Your task to perform on an android device: turn on javascript in the chrome app Image 0: 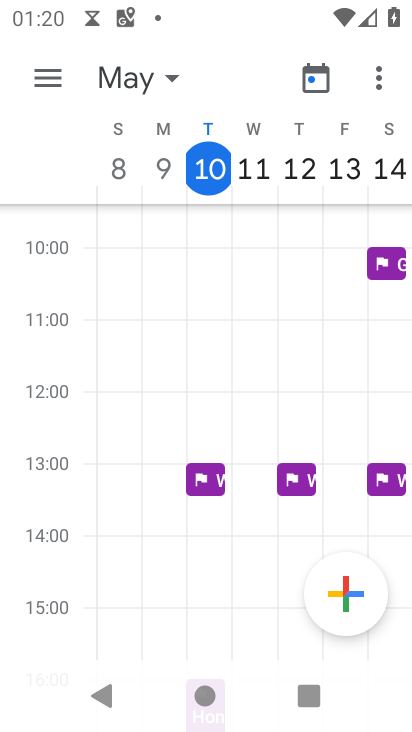
Step 0: press home button
Your task to perform on an android device: turn on javascript in the chrome app Image 1: 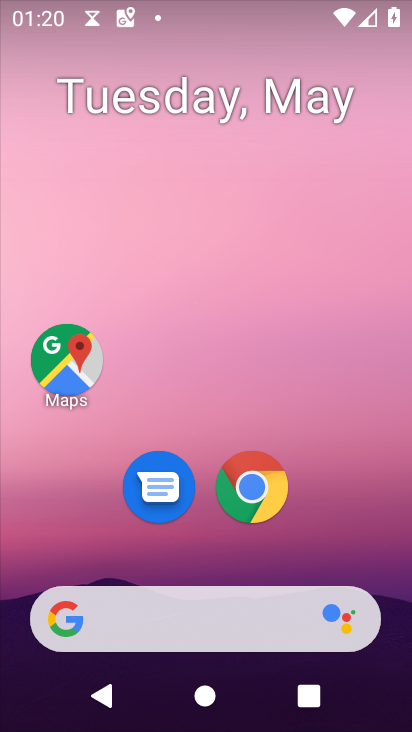
Step 1: click (271, 491)
Your task to perform on an android device: turn on javascript in the chrome app Image 2: 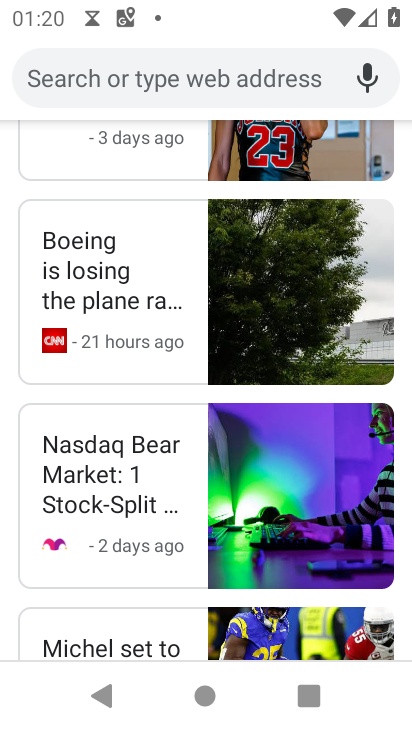
Step 2: press back button
Your task to perform on an android device: turn on javascript in the chrome app Image 3: 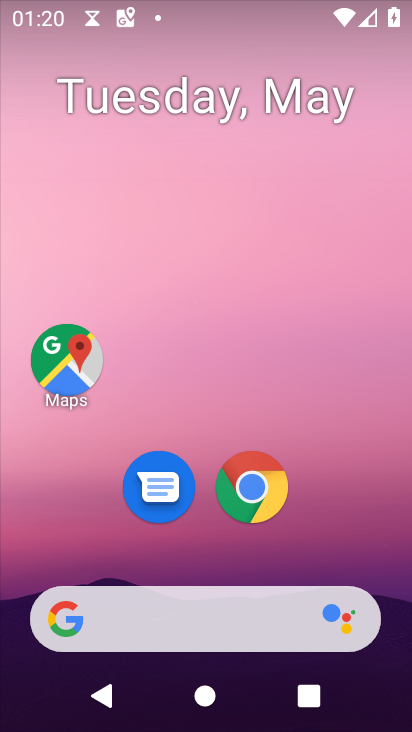
Step 3: click (246, 491)
Your task to perform on an android device: turn on javascript in the chrome app Image 4: 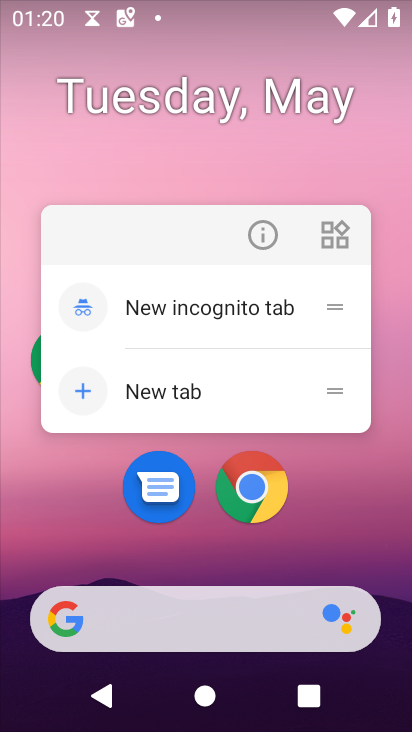
Step 4: click (247, 476)
Your task to perform on an android device: turn on javascript in the chrome app Image 5: 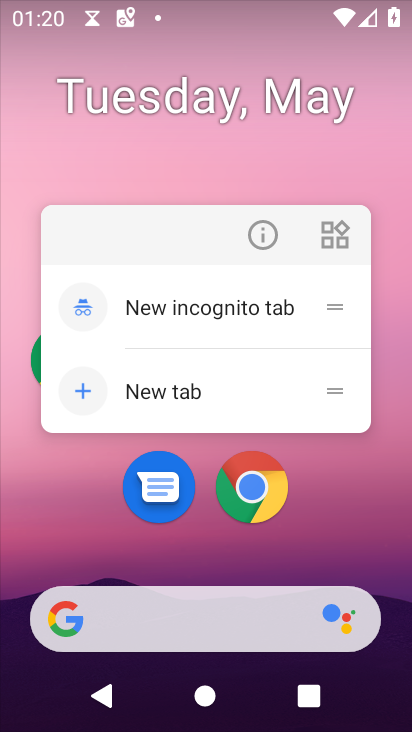
Step 5: click (248, 473)
Your task to perform on an android device: turn on javascript in the chrome app Image 6: 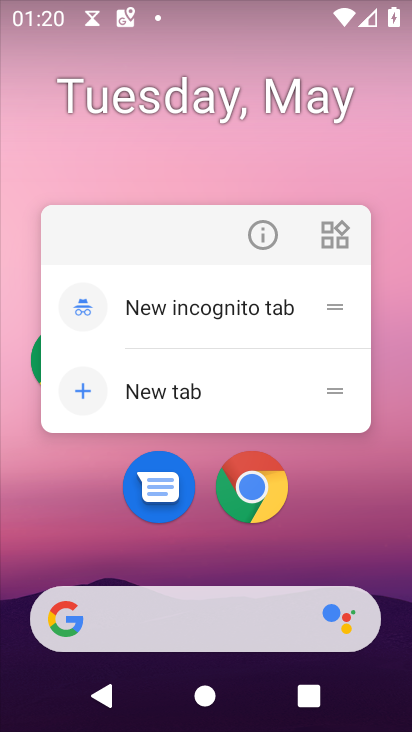
Step 6: click (246, 466)
Your task to perform on an android device: turn on javascript in the chrome app Image 7: 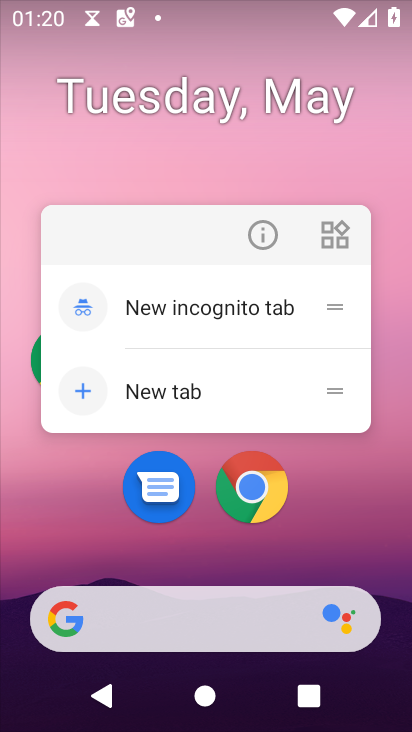
Step 7: click (239, 475)
Your task to perform on an android device: turn on javascript in the chrome app Image 8: 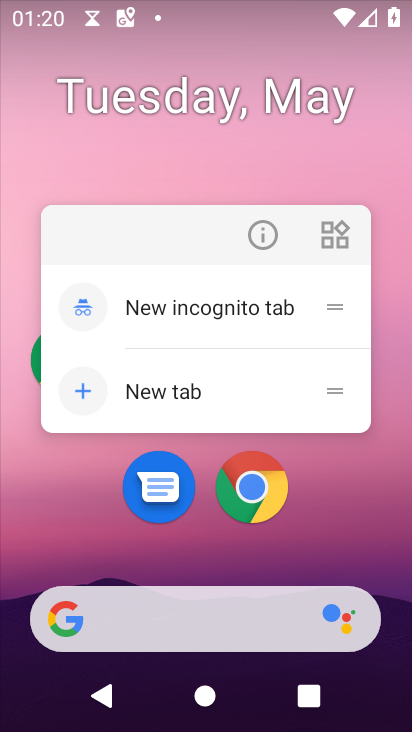
Step 8: click (239, 475)
Your task to perform on an android device: turn on javascript in the chrome app Image 9: 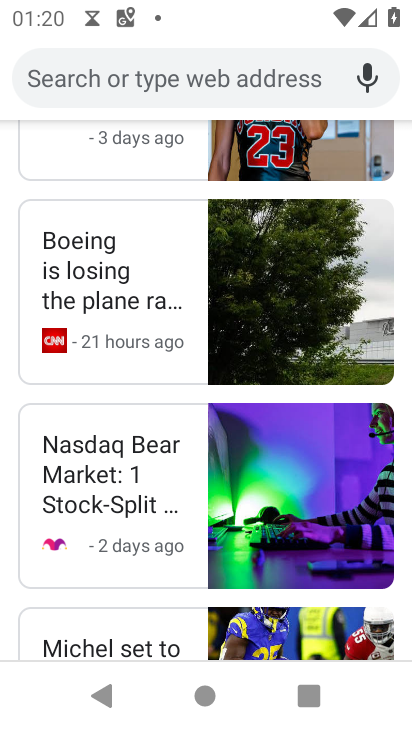
Step 9: click (164, 71)
Your task to perform on an android device: turn on javascript in the chrome app Image 10: 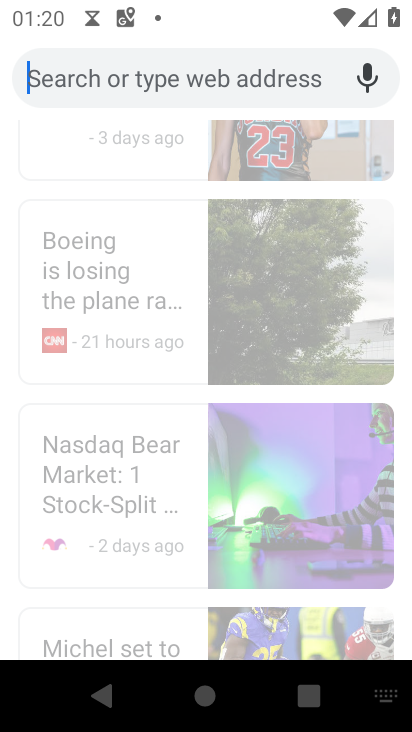
Step 10: click (224, 62)
Your task to perform on an android device: turn on javascript in the chrome app Image 11: 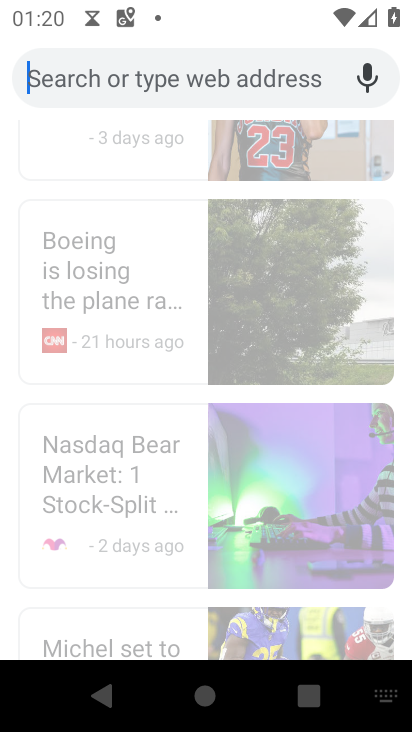
Step 11: click (212, 74)
Your task to perform on an android device: turn on javascript in the chrome app Image 12: 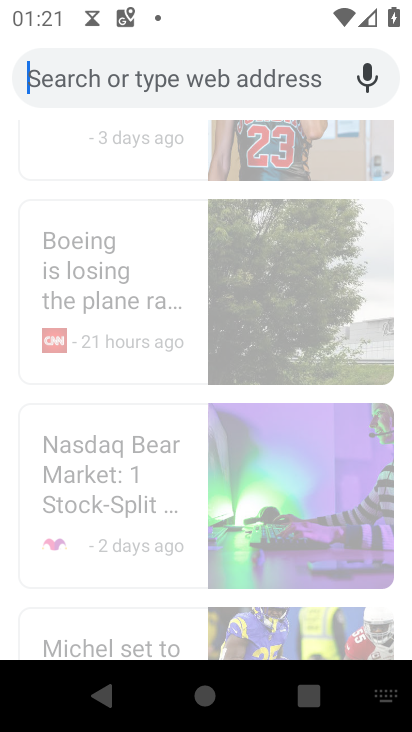
Step 12: press back button
Your task to perform on an android device: turn on javascript in the chrome app Image 13: 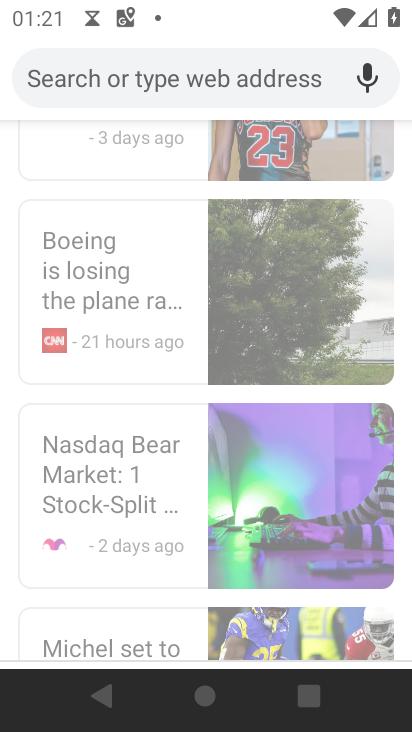
Step 13: press back button
Your task to perform on an android device: turn on javascript in the chrome app Image 14: 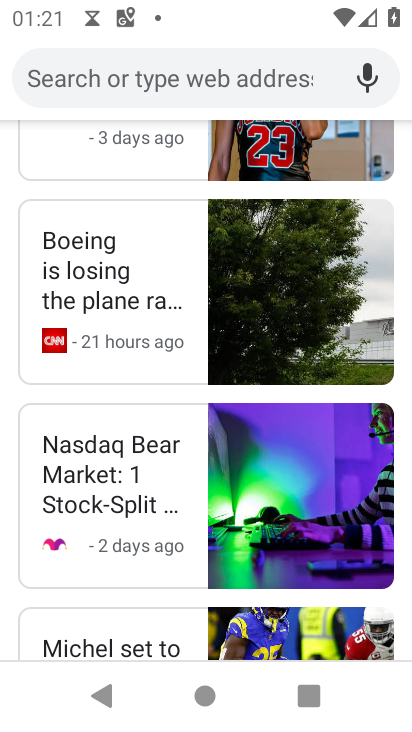
Step 14: press back button
Your task to perform on an android device: turn on javascript in the chrome app Image 15: 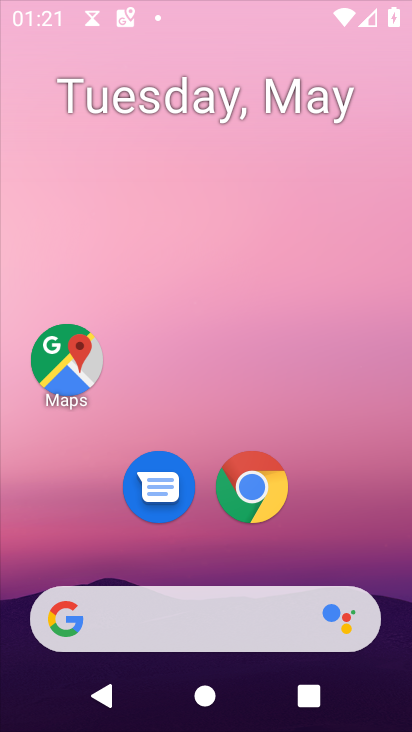
Step 15: press back button
Your task to perform on an android device: turn on javascript in the chrome app Image 16: 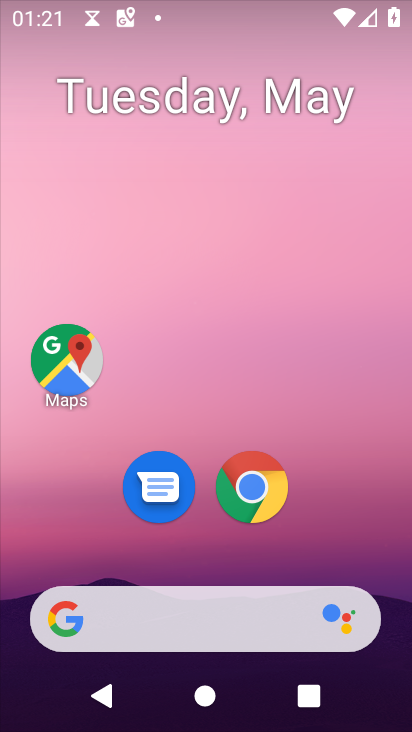
Step 16: press back button
Your task to perform on an android device: turn on javascript in the chrome app Image 17: 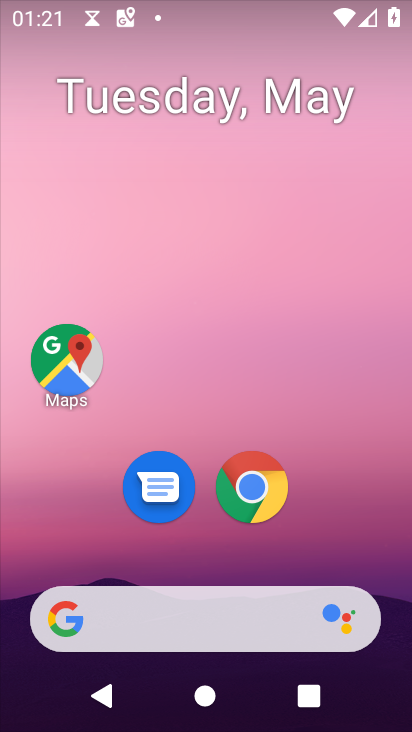
Step 17: press back button
Your task to perform on an android device: turn on javascript in the chrome app Image 18: 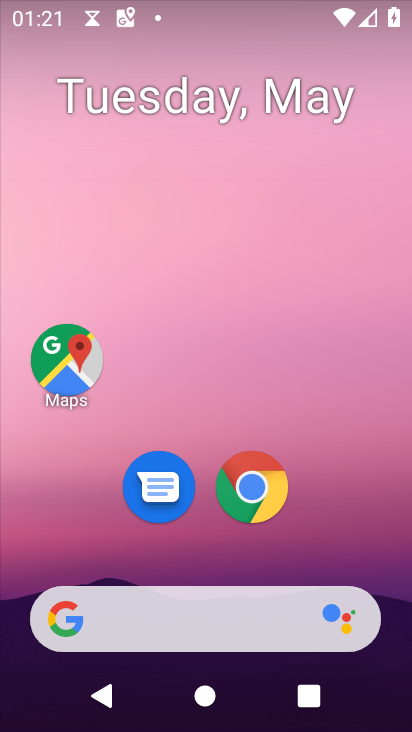
Step 18: press back button
Your task to perform on an android device: turn on javascript in the chrome app Image 19: 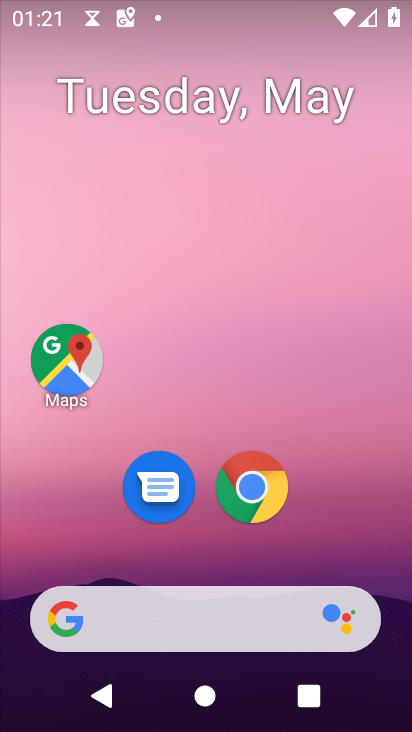
Step 19: click (243, 484)
Your task to perform on an android device: turn on javascript in the chrome app Image 20: 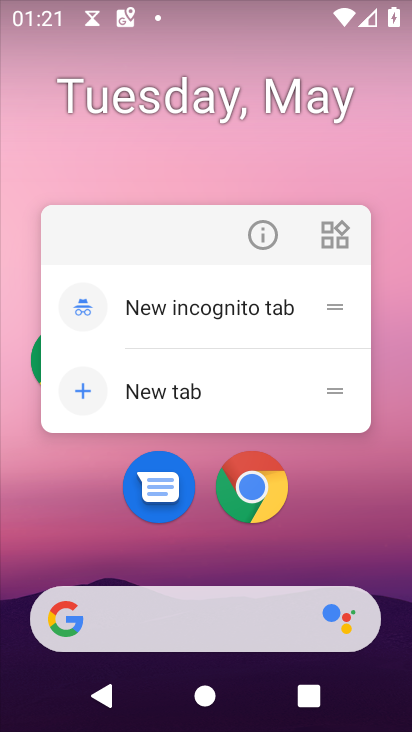
Step 20: click (243, 484)
Your task to perform on an android device: turn on javascript in the chrome app Image 21: 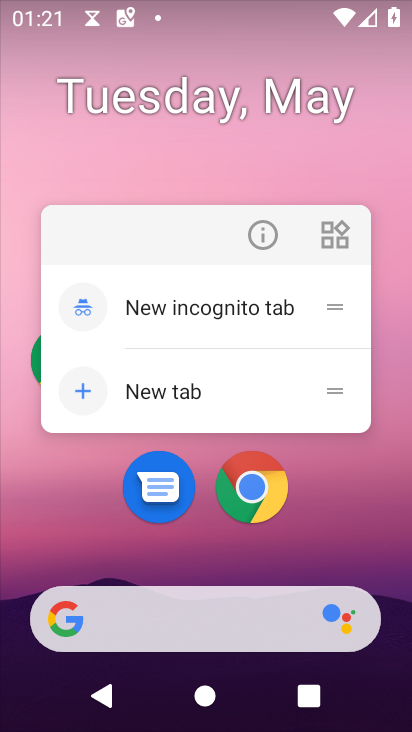
Step 21: click (230, 386)
Your task to perform on an android device: turn on javascript in the chrome app Image 22: 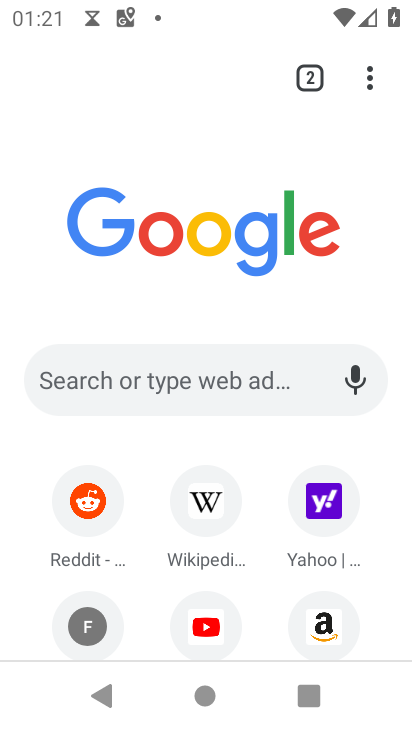
Step 22: click (368, 79)
Your task to perform on an android device: turn on javascript in the chrome app Image 23: 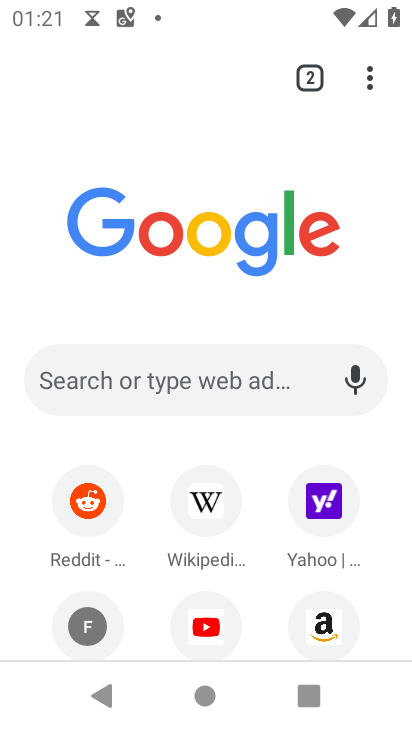
Step 23: click (367, 82)
Your task to perform on an android device: turn on javascript in the chrome app Image 24: 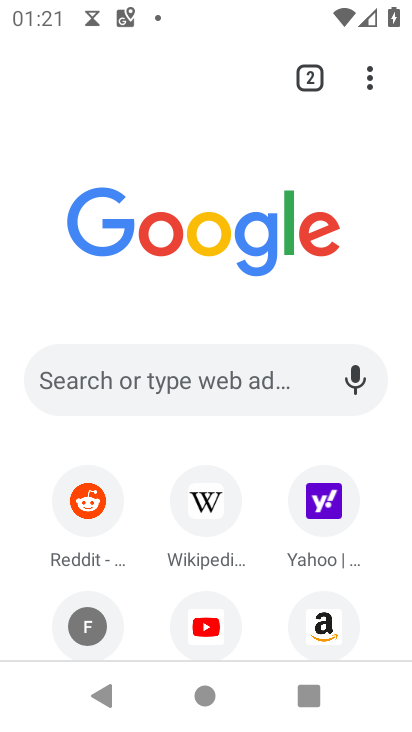
Step 24: click (370, 72)
Your task to perform on an android device: turn on javascript in the chrome app Image 25: 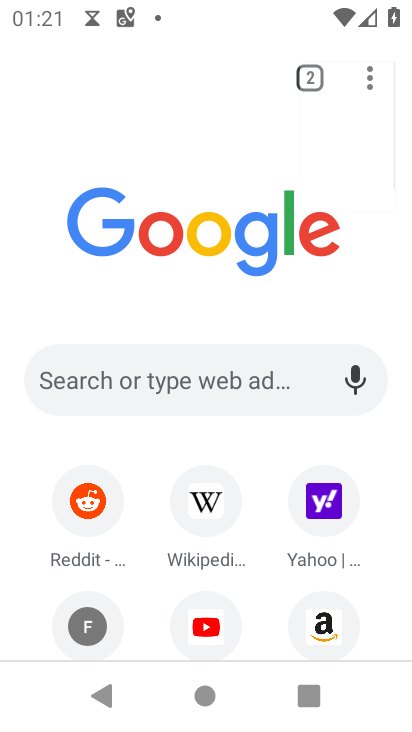
Step 25: click (370, 72)
Your task to perform on an android device: turn on javascript in the chrome app Image 26: 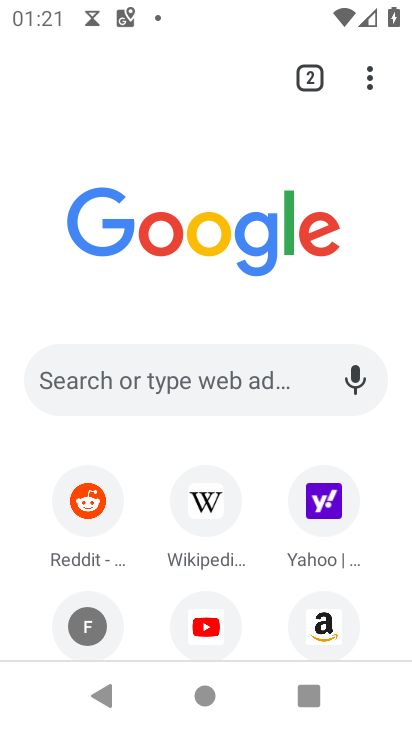
Step 26: click (374, 71)
Your task to perform on an android device: turn on javascript in the chrome app Image 27: 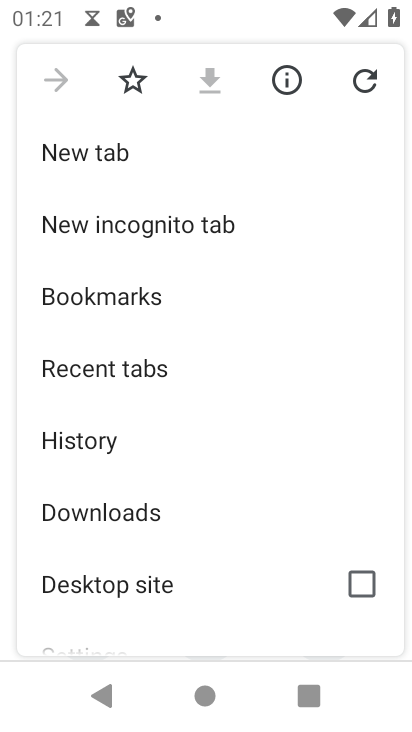
Step 27: drag from (193, 483) to (194, 197)
Your task to perform on an android device: turn on javascript in the chrome app Image 28: 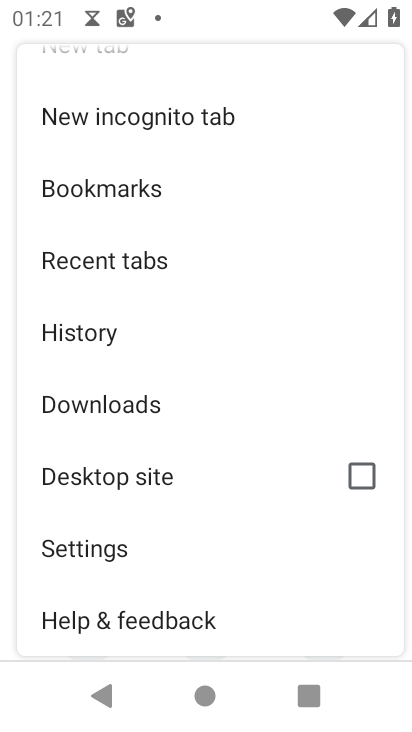
Step 28: click (145, 542)
Your task to perform on an android device: turn on javascript in the chrome app Image 29: 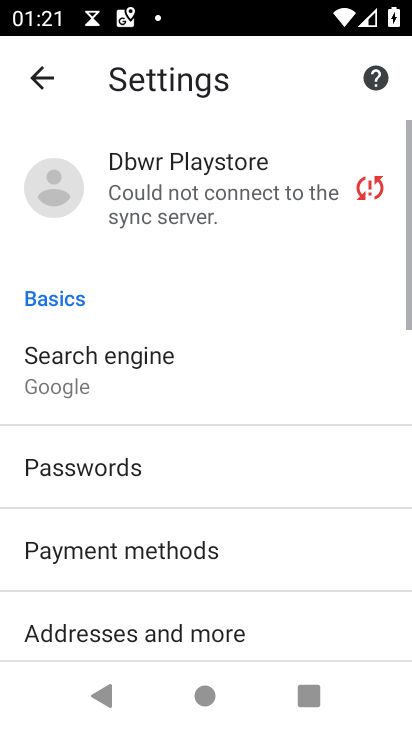
Step 29: drag from (107, 536) to (229, 179)
Your task to perform on an android device: turn on javascript in the chrome app Image 30: 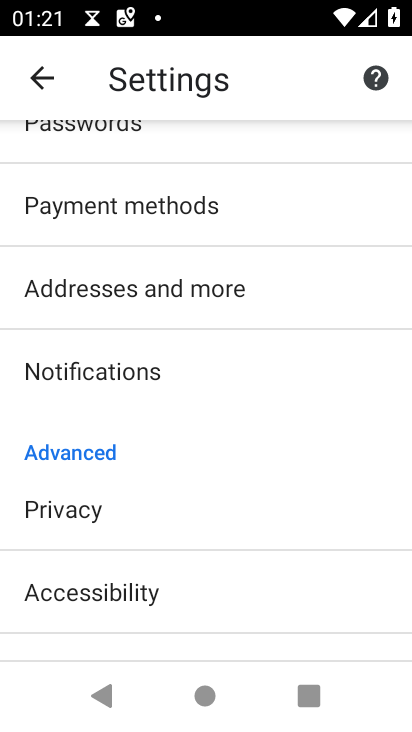
Step 30: drag from (118, 562) to (249, 194)
Your task to perform on an android device: turn on javascript in the chrome app Image 31: 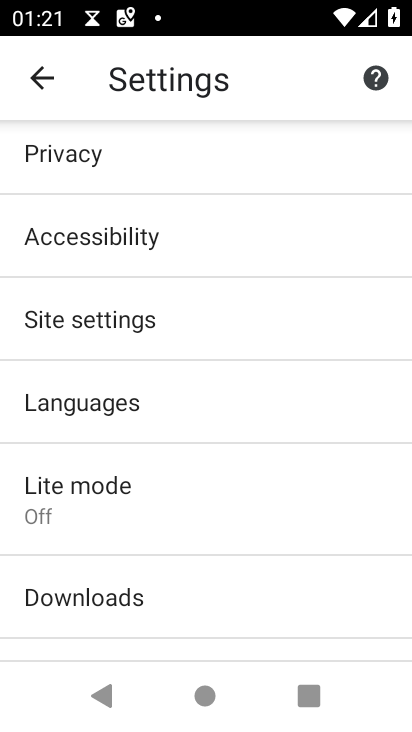
Step 31: click (185, 309)
Your task to perform on an android device: turn on javascript in the chrome app Image 32: 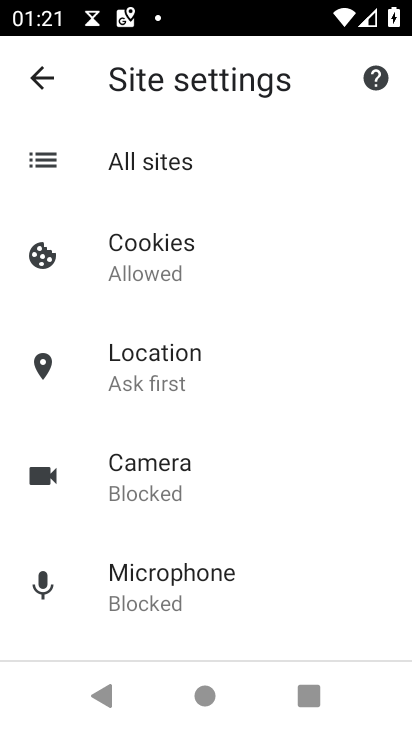
Step 32: drag from (224, 462) to (314, 72)
Your task to perform on an android device: turn on javascript in the chrome app Image 33: 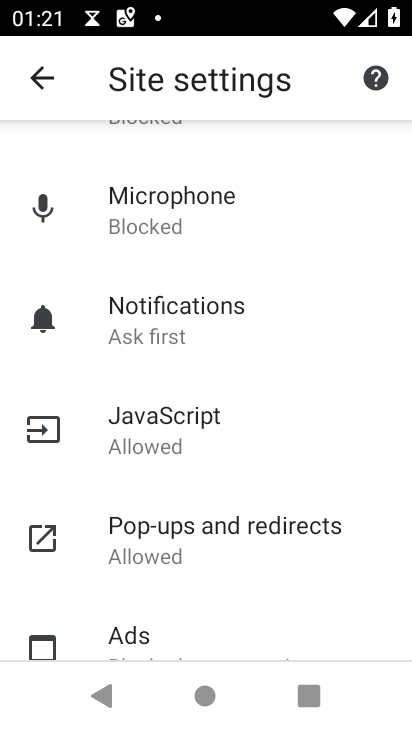
Step 33: click (231, 418)
Your task to perform on an android device: turn on javascript in the chrome app Image 34: 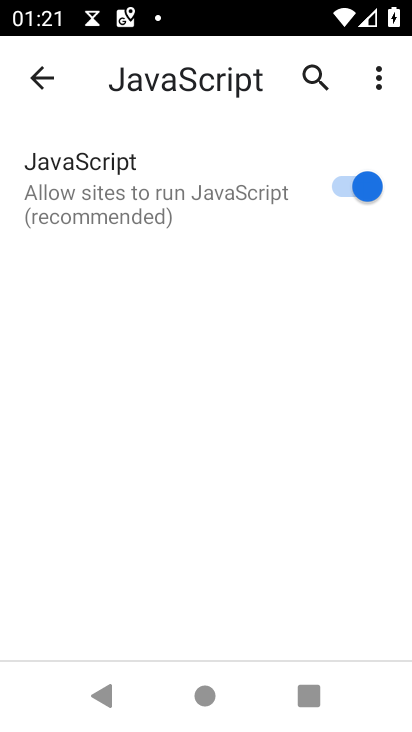
Step 34: task complete